Your task to perform on an android device: turn off wifi Image 0: 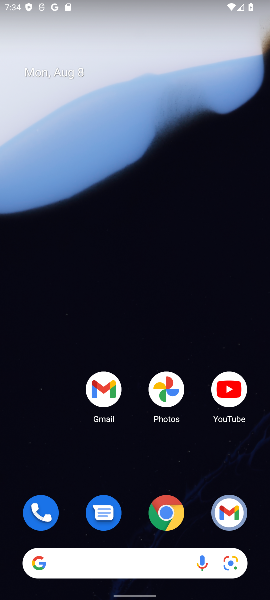
Step 0: drag from (47, 453) to (143, 138)
Your task to perform on an android device: turn off wifi Image 1: 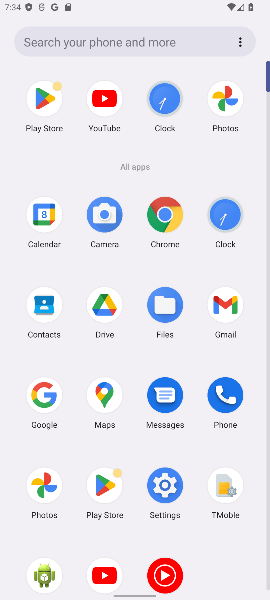
Step 1: click (169, 484)
Your task to perform on an android device: turn off wifi Image 2: 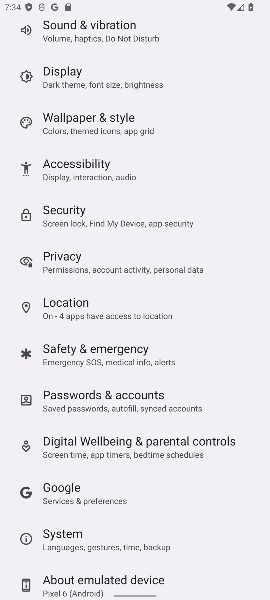
Step 2: drag from (185, 71) to (189, 487)
Your task to perform on an android device: turn off wifi Image 3: 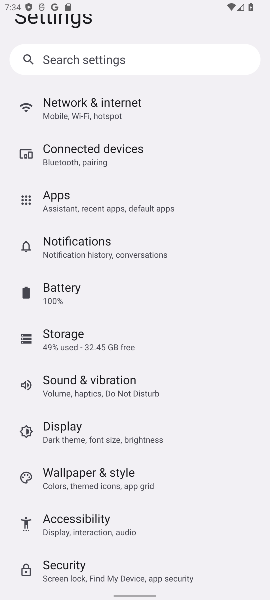
Step 3: click (128, 113)
Your task to perform on an android device: turn off wifi Image 4: 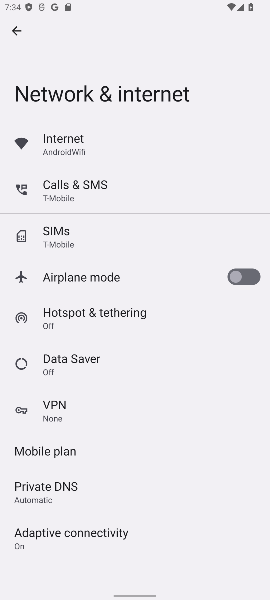
Step 4: click (112, 134)
Your task to perform on an android device: turn off wifi Image 5: 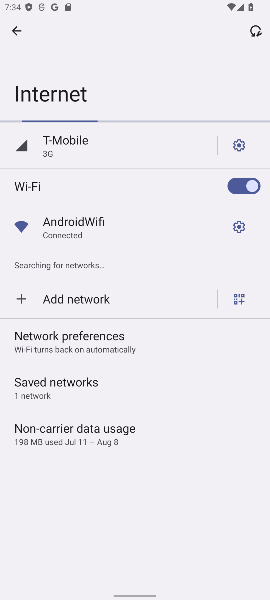
Step 5: click (245, 183)
Your task to perform on an android device: turn off wifi Image 6: 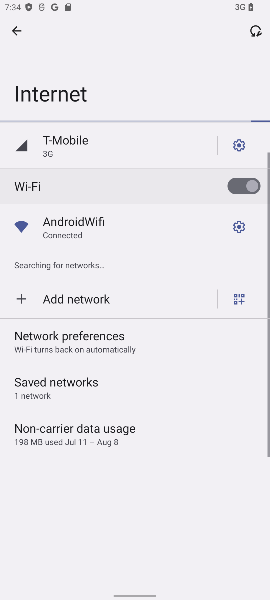
Step 6: task complete